Your task to perform on an android device: find photos in the google photos app Image 0: 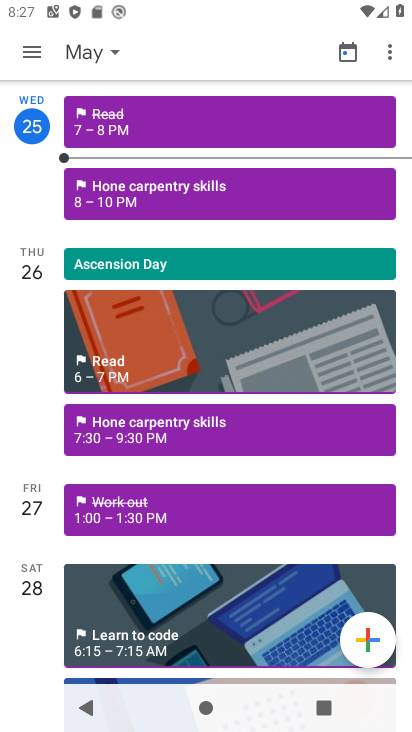
Step 0: press home button
Your task to perform on an android device: find photos in the google photos app Image 1: 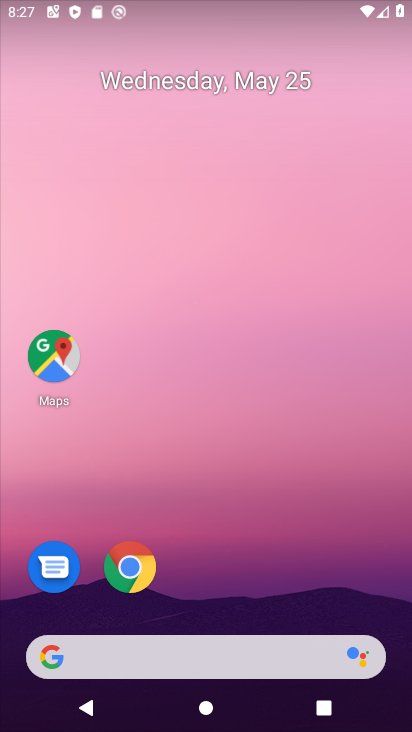
Step 1: drag from (239, 596) to (212, 17)
Your task to perform on an android device: find photos in the google photos app Image 2: 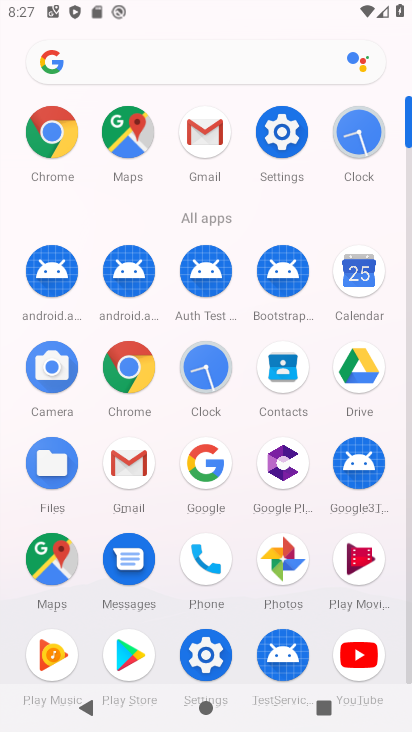
Step 2: click (279, 555)
Your task to perform on an android device: find photos in the google photos app Image 3: 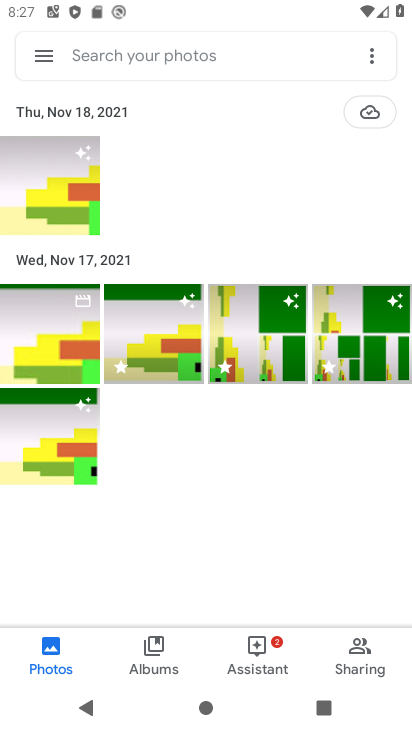
Step 3: task complete